Your task to perform on an android device: toggle improve location accuracy Image 0: 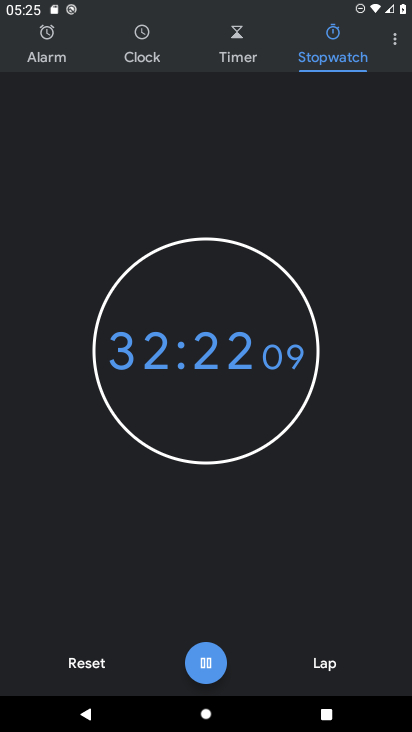
Step 0: press home button
Your task to perform on an android device: toggle improve location accuracy Image 1: 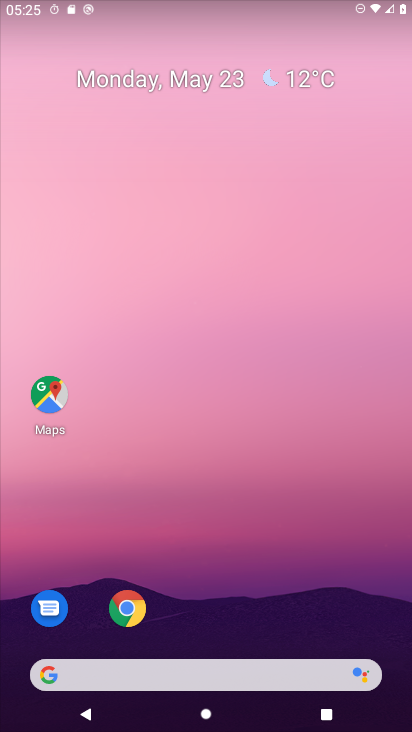
Step 1: drag from (269, 599) to (177, 65)
Your task to perform on an android device: toggle improve location accuracy Image 2: 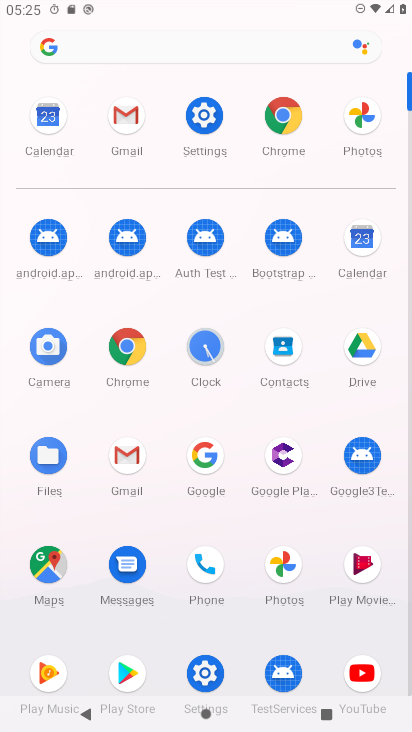
Step 2: click (202, 133)
Your task to perform on an android device: toggle improve location accuracy Image 3: 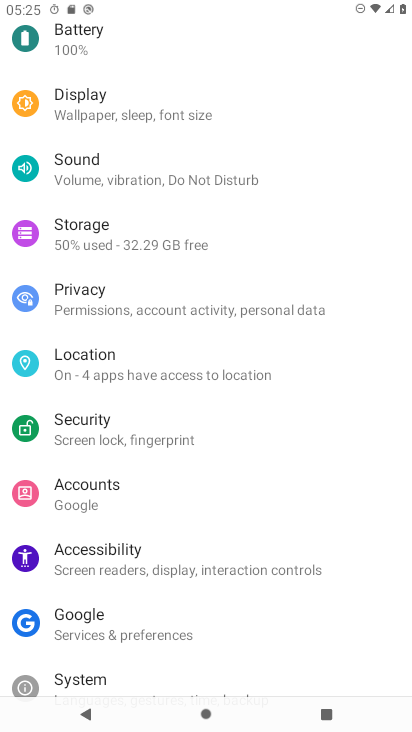
Step 3: click (172, 368)
Your task to perform on an android device: toggle improve location accuracy Image 4: 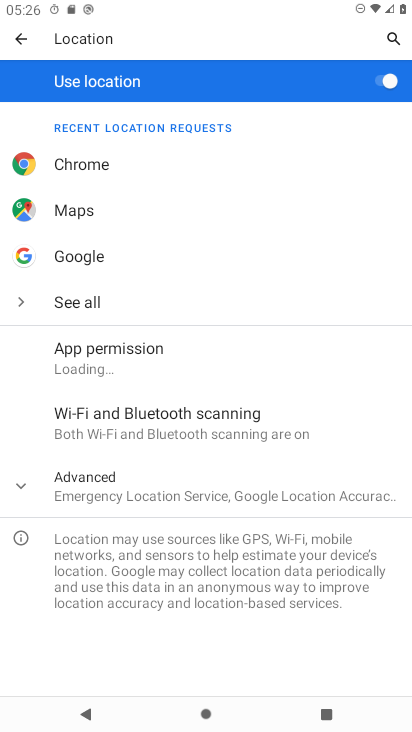
Step 4: click (171, 471)
Your task to perform on an android device: toggle improve location accuracy Image 5: 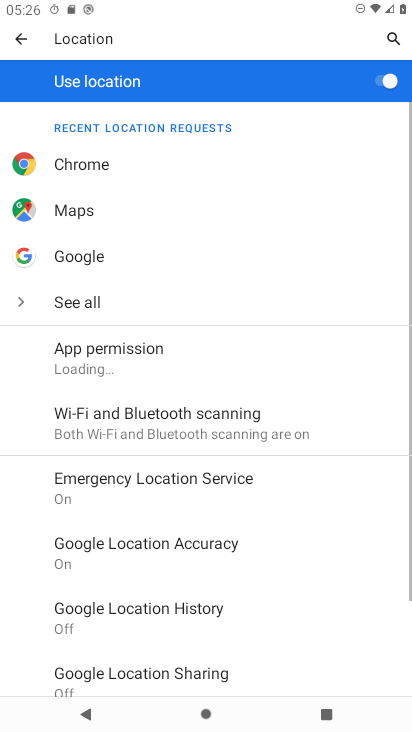
Step 5: click (241, 544)
Your task to perform on an android device: toggle improve location accuracy Image 6: 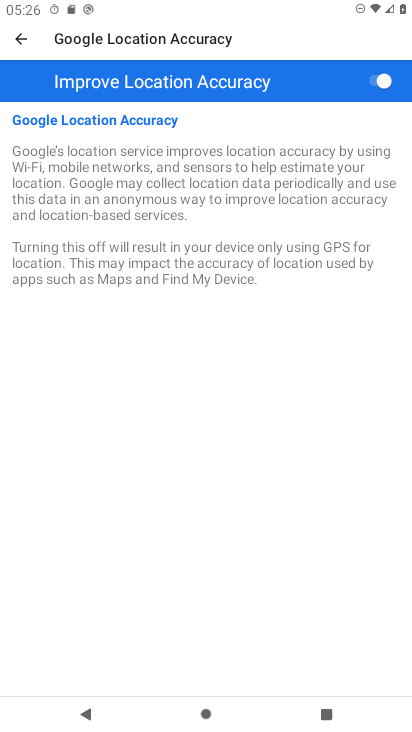
Step 6: task complete